Your task to perform on an android device: Open sound settings Image 0: 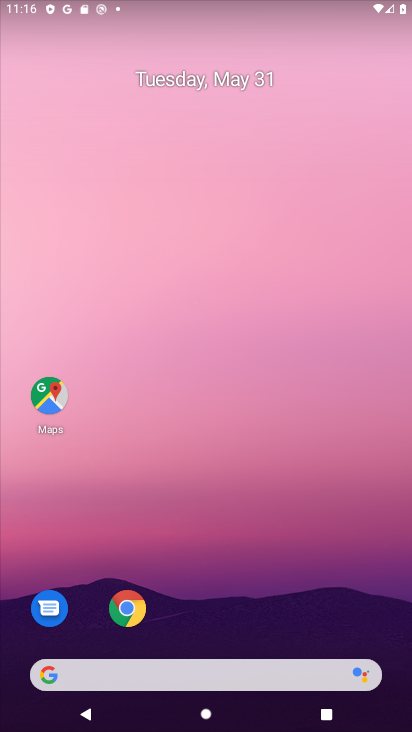
Step 0: press home button
Your task to perform on an android device: Open sound settings Image 1: 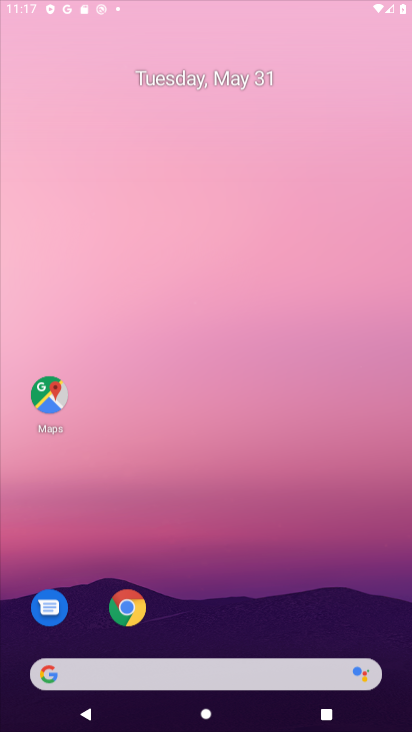
Step 1: drag from (233, 621) to (248, 5)
Your task to perform on an android device: Open sound settings Image 2: 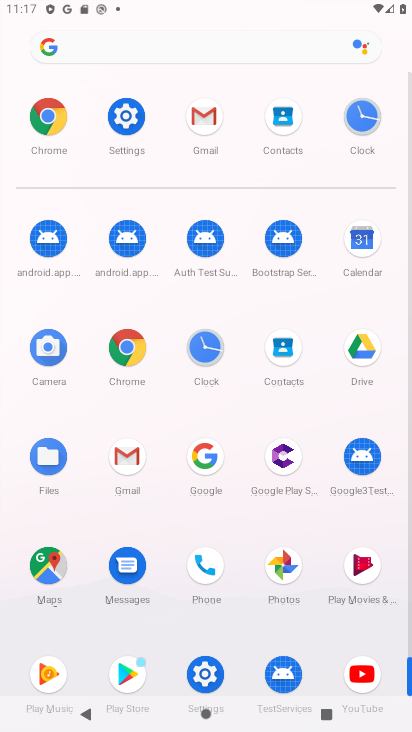
Step 2: click (123, 143)
Your task to perform on an android device: Open sound settings Image 3: 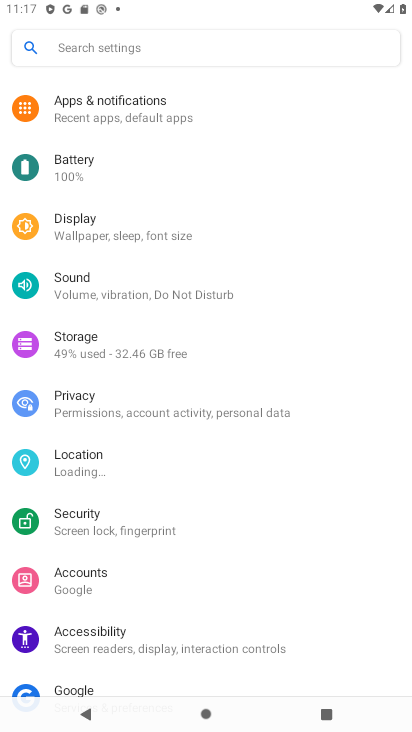
Step 3: click (75, 294)
Your task to perform on an android device: Open sound settings Image 4: 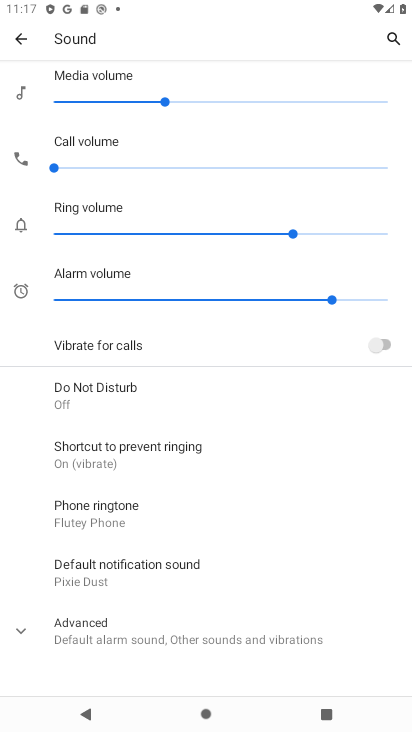
Step 4: task complete